Your task to perform on an android device: Check the weather Image 0: 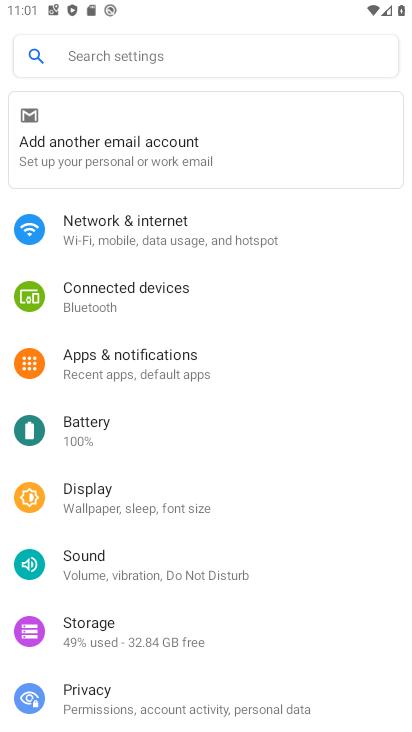
Step 0: press home button
Your task to perform on an android device: Check the weather Image 1: 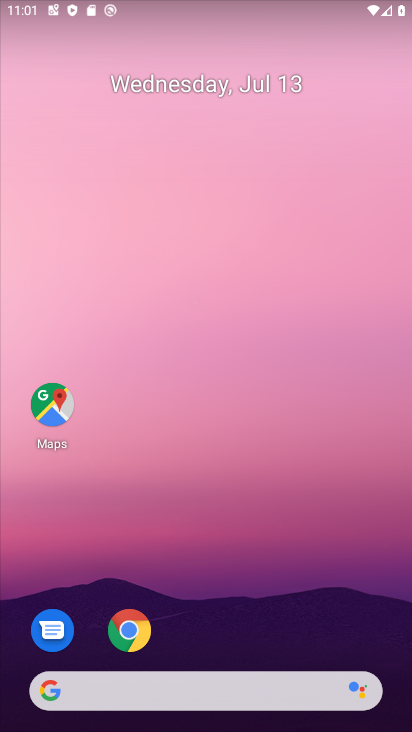
Step 1: drag from (227, 476) to (227, 8)
Your task to perform on an android device: Check the weather Image 2: 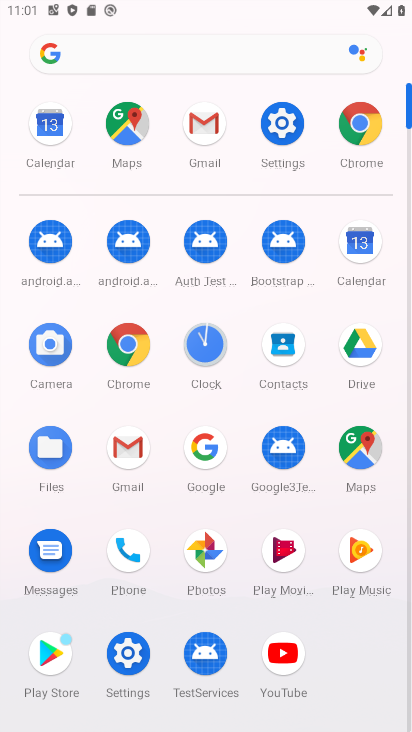
Step 2: click (195, 437)
Your task to perform on an android device: Check the weather Image 3: 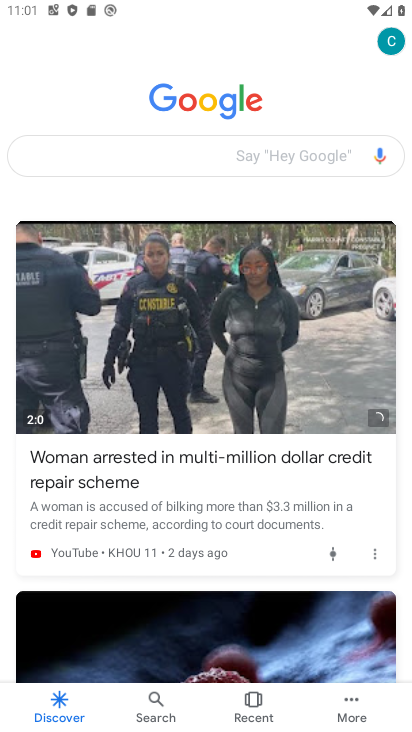
Step 3: click (217, 164)
Your task to perform on an android device: Check the weather Image 4: 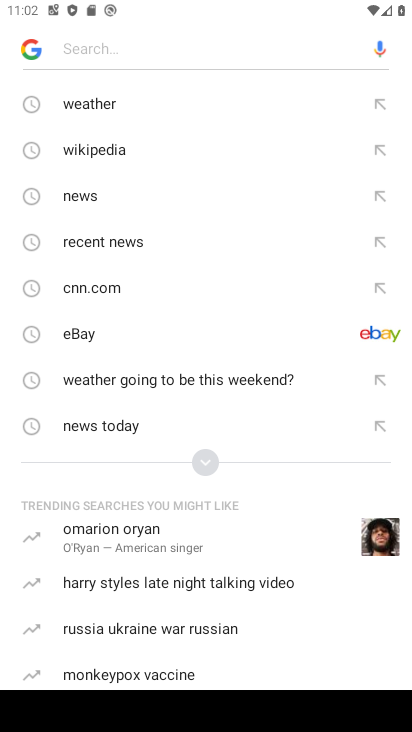
Step 4: click (86, 108)
Your task to perform on an android device: Check the weather Image 5: 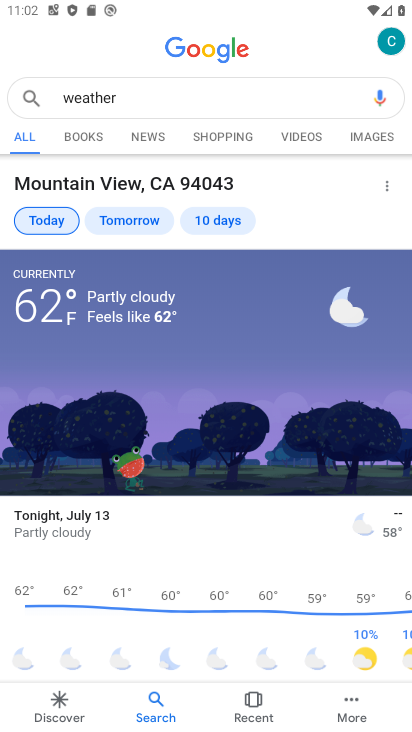
Step 5: task complete